Your task to perform on an android device: remove spam from my inbox in the gmail app Image 0: 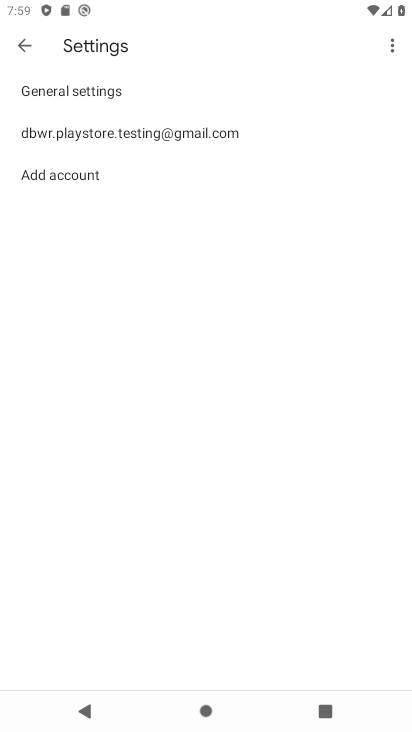
Step 0: click (33, 30)
Your task to perform on an android device: remove spam from my inbox in the gmail app Image 1: 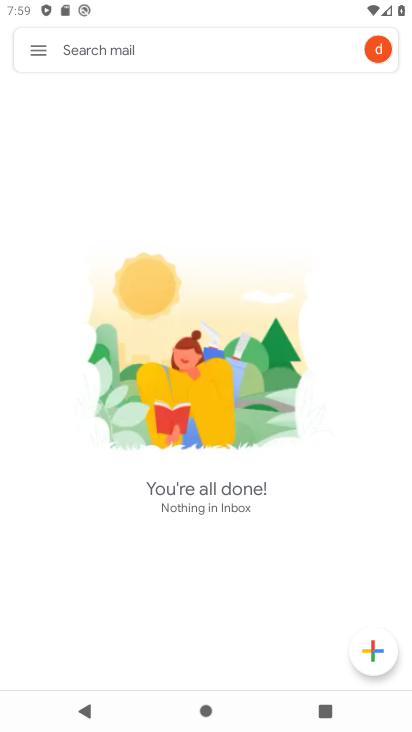
Step 1: click (28, 48)
Your task to perform on an android device: remove spam from my inbox in the gmail app Image 2: 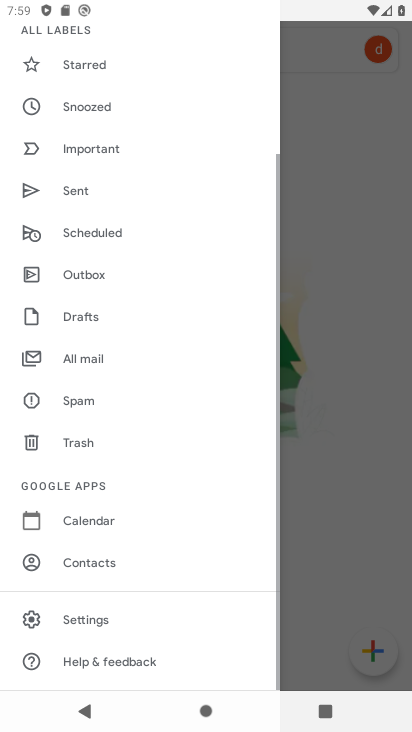
Step 2: click (53, 390)
Your task to perform on an android device: remove spam from my inbox in the gmail app Image 3: 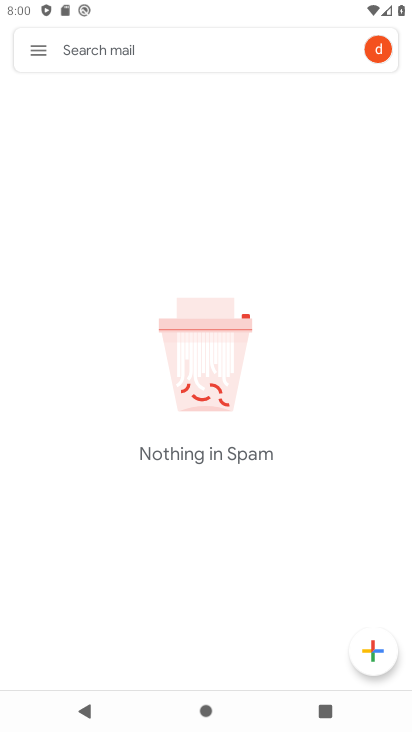
Step 3: task complete